Your task to perform on an android device: What is the news today? Image 0: 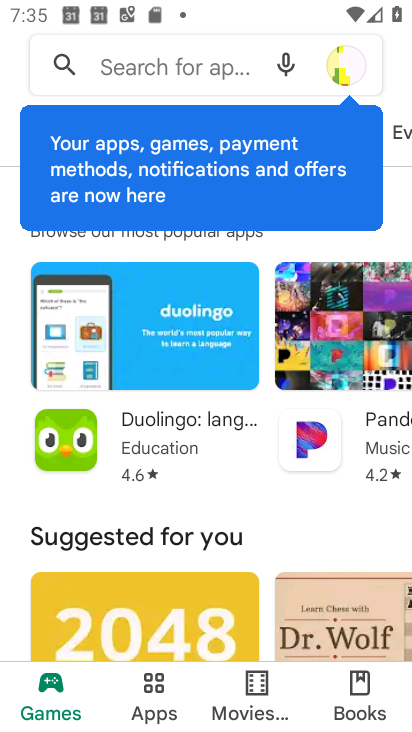
Step 0: press home button
Your task to perform on an android device: What is the news today? Image 1: 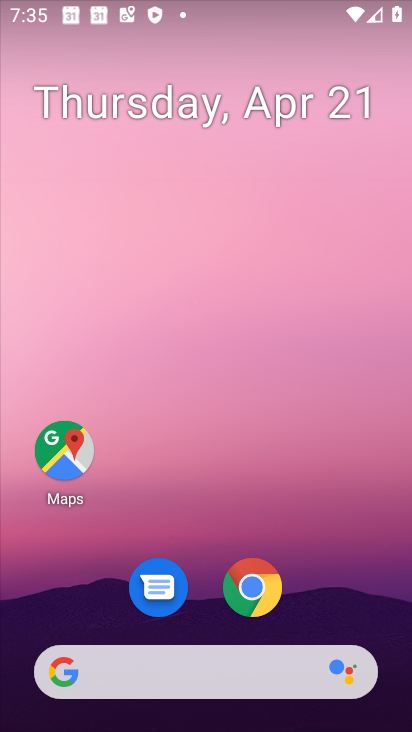
Step 1: task complete